Your task to perform on an android device: Open the map Image 0: 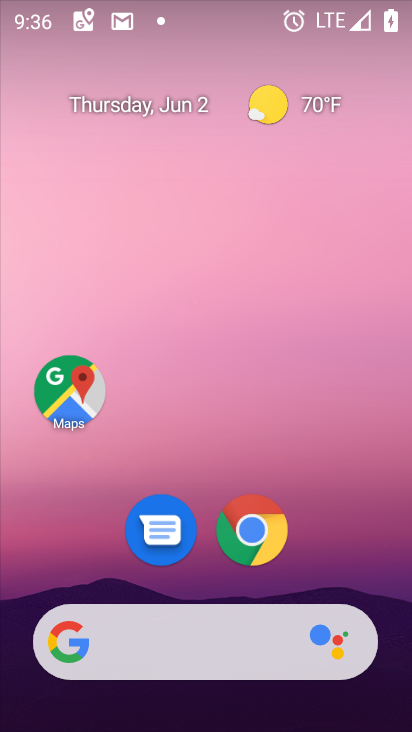
Step 0: click (66, 390)
Your task to perform on an android device: Open the map Image 1: 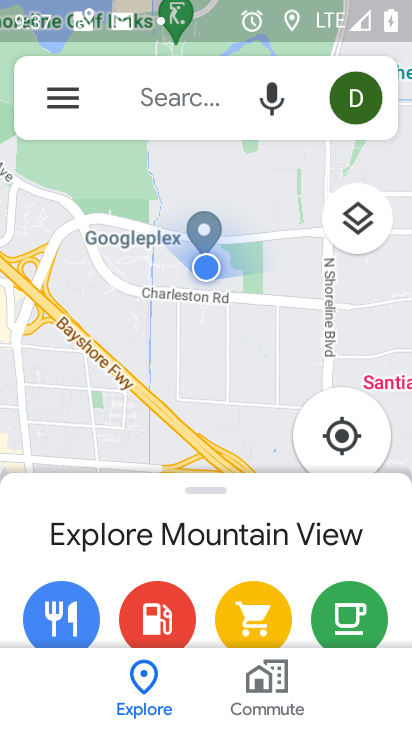
Step 1: task complete